Your task to perform on an android device: Go to notification settings Image 0: 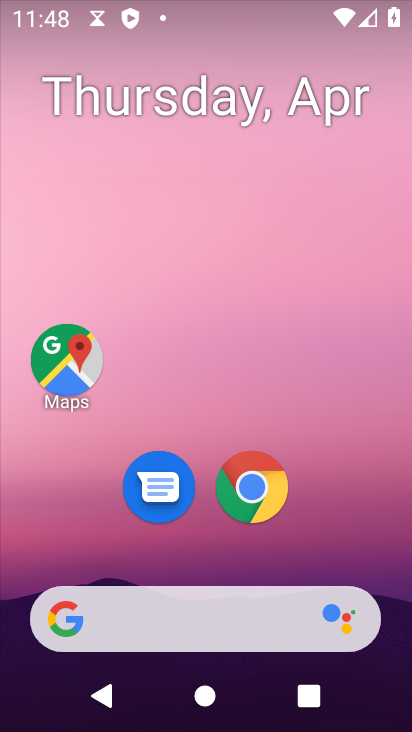
Step 0: drag from (340, 428) to (371, 193)
Your task to perform on an android device: Go to notification settings Image 1: 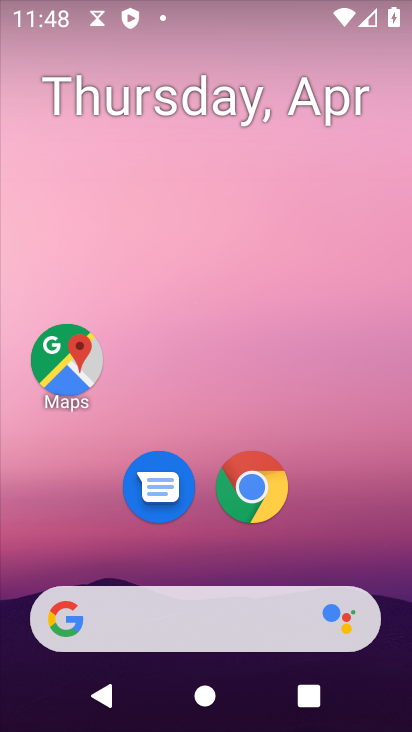
Step 1: drag from (328, 468) to (367, 196)
Your task to perform on an android device: Go to notification settings Image 2: 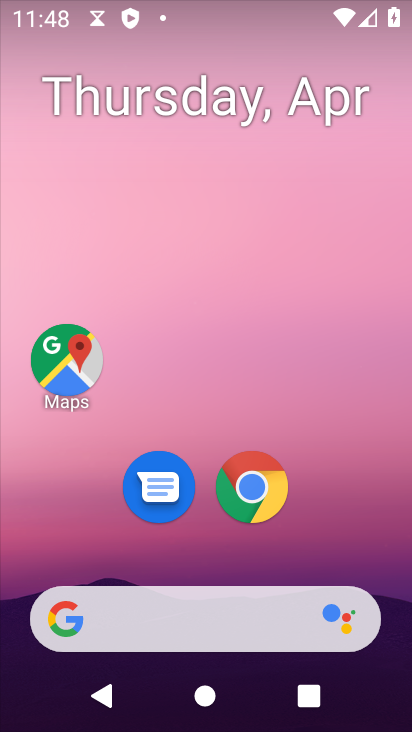
Step 2: drag from (325, 516) to (378, 104)
Your task to perform on an android device: Go to notification settings Image 3: 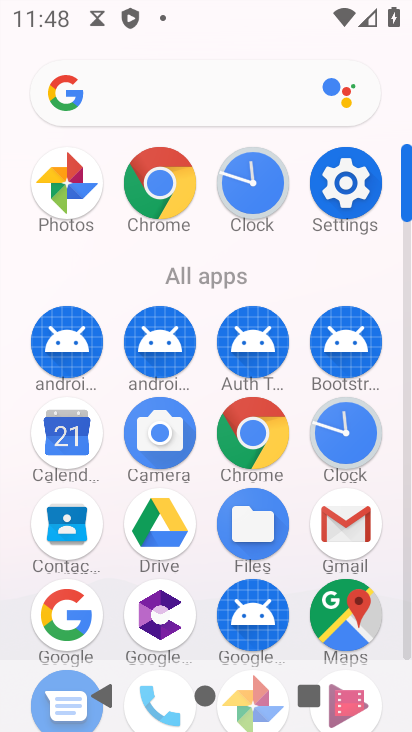
Step 3: click (359, 168)
Your task to perform on an android device: Go to notification settings Image 4: 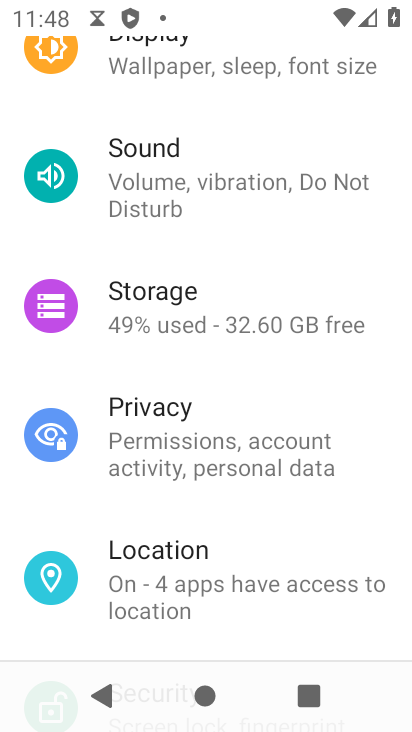
Step 4: drag from (226, 120) to (208, 509)
Your task to perform on an android device: Go to notification settings Image 5: 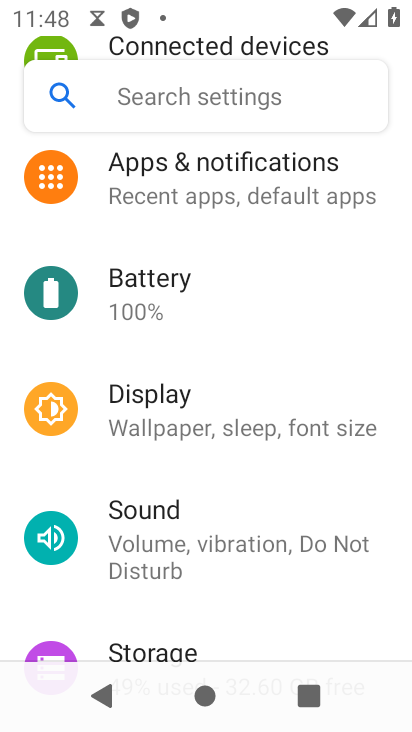
Step 5: click (284, 160)
Your task to perform on an android device: Go to notification settings Image 6: 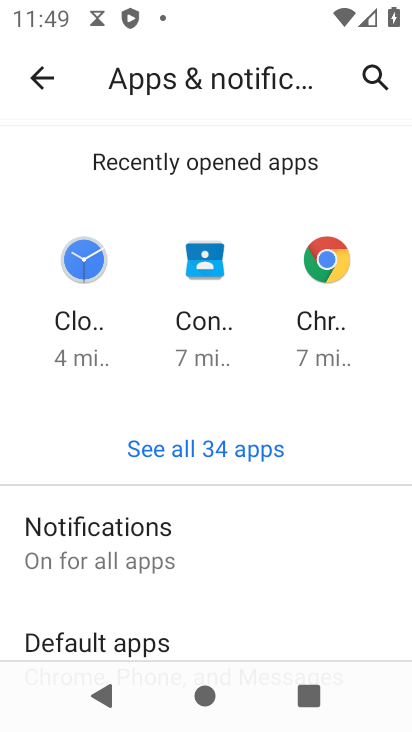
Step 6: click (165, 552)
Your task to perform on an android device: Go to notification settings Image 7: 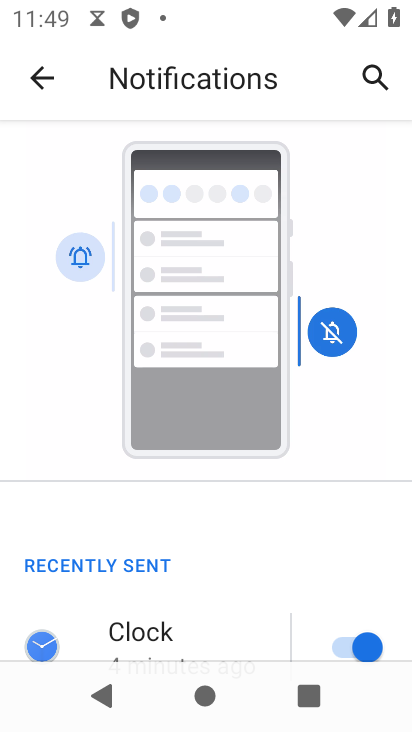
Step 7: task complete